Your task to perform on an android device: toggle pop-ups in chrome Image 0: 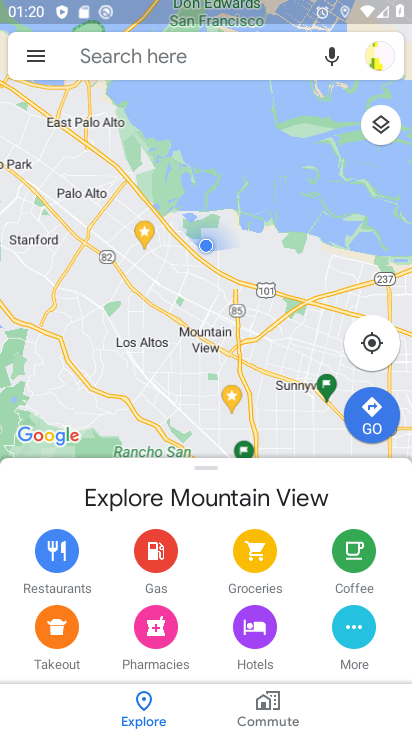
Step 0: press home button
Your task to perform on an android device: toggle pop-ups in chrome Image 1: 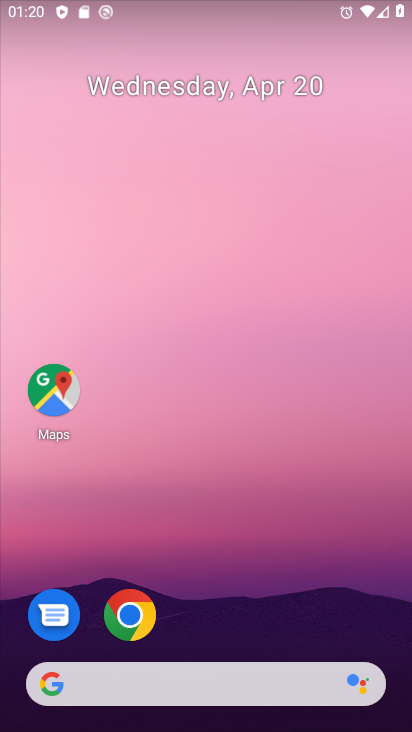
Step 1: click (134, 608)
Your task to perform on an android device: toggle pop-ups in chrome Image 2: 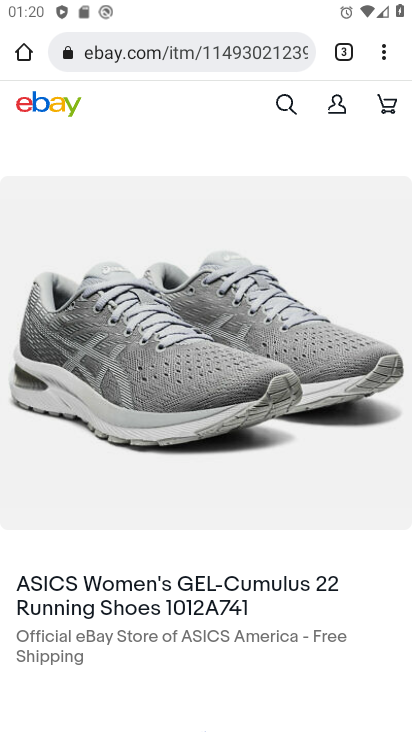
Step 2: click (379, 46)
Your task to perform on an android device: toggle pop-ups in chrome Image 3: 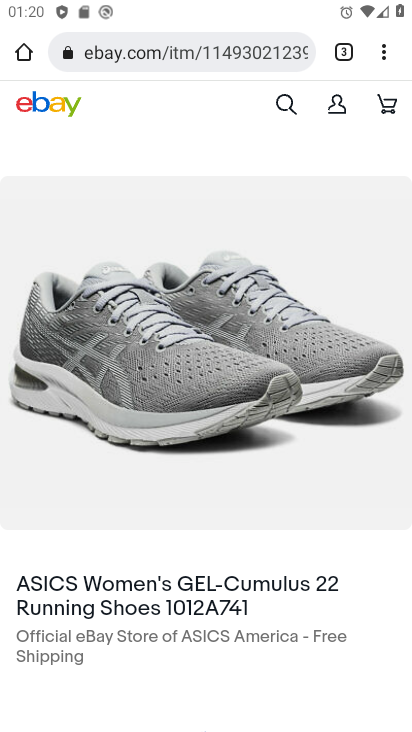
Step 3: click (382, 48)
Your task to perform on an android device: toggle pop-ups in chrome Image 4: 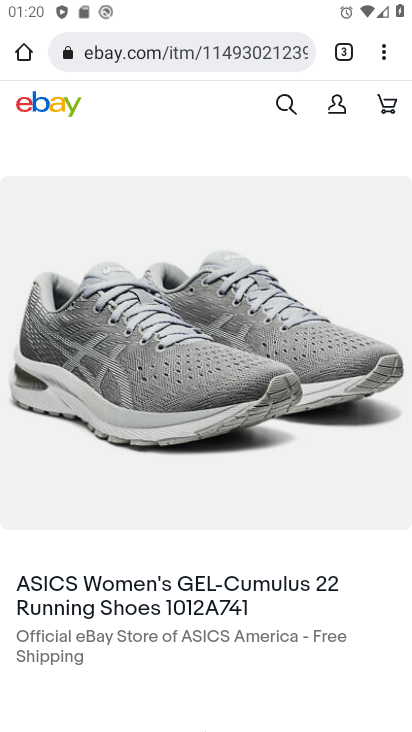
Step 4: drag from (382, 48) to (383, 151)
Your task to perform on an android device: toggle pop-ups in chrome Image 5: 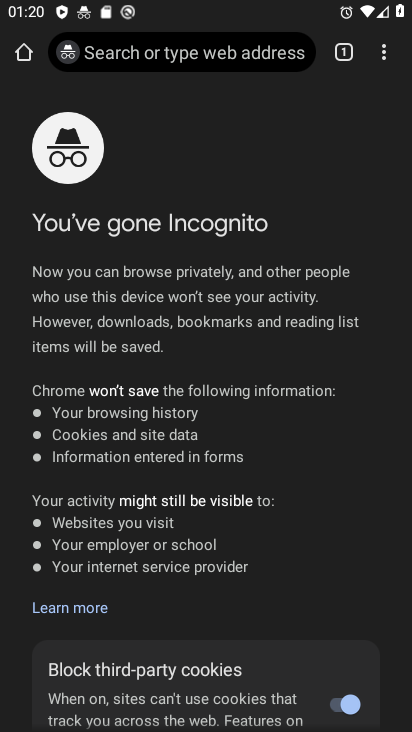
Step 5: drag from (381, 48) to (382, 104)
Your task to perform on an android device: toggle pop-ups in chrome Image 6: 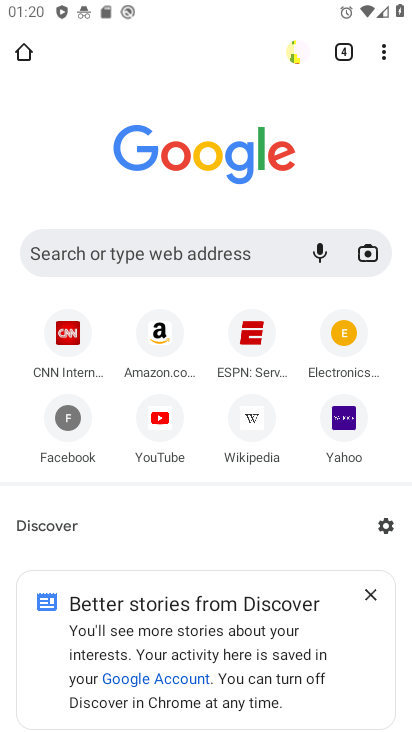
Step 6: drag from (382, 44) to (392, 186)
Your task to perform on an android device: toggle pop-ups in chrome Image 7: 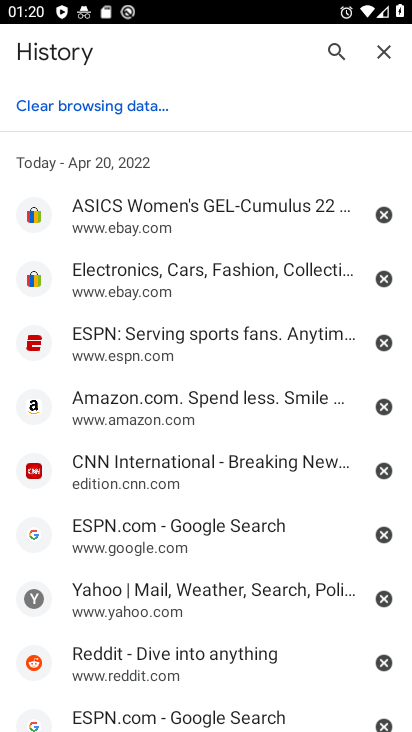
Step 7: click (392, 48)
Your task to perform on an android device: toggle pop-ups in chrome Image 8: 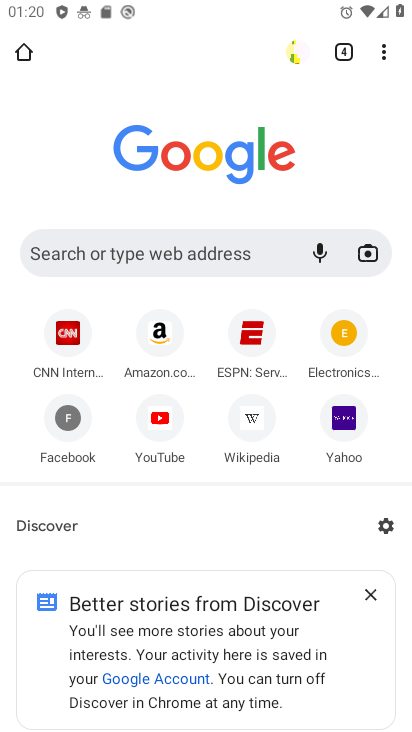
Step 8: click (380, 50)
Your task to perform on an android device: toggle pop-ups in chrome Image 9: 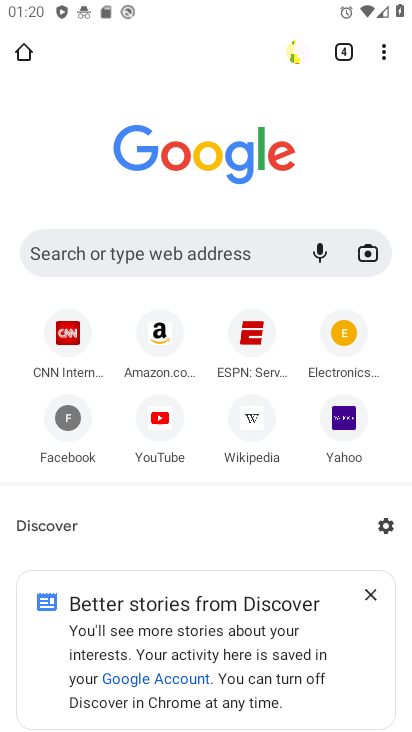
Step 9: click (380, 50)
Your task to perform on an android device: toggle pop-ups in chrome Image 10: 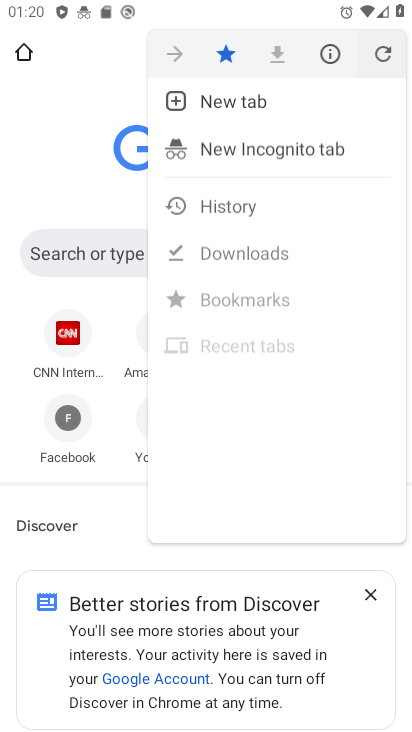
Step 10: click (380, 50)
Your task to perform on an android device: toggle pop-ups in chrome Image 11: 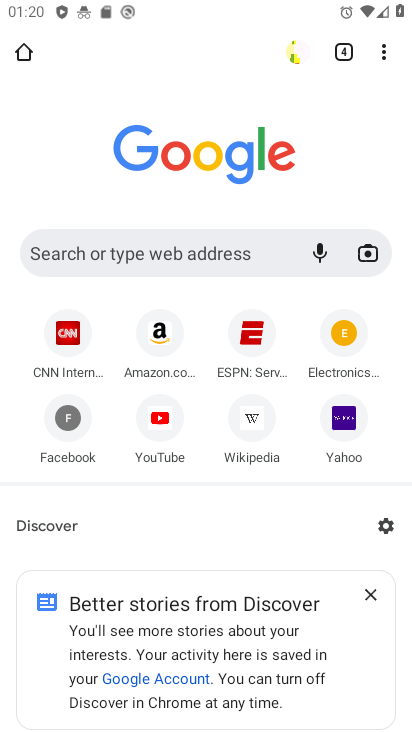
Step 11: click (381, 50)
Your task to perform on an android device: toggle pop-ups in chrome Image 12: 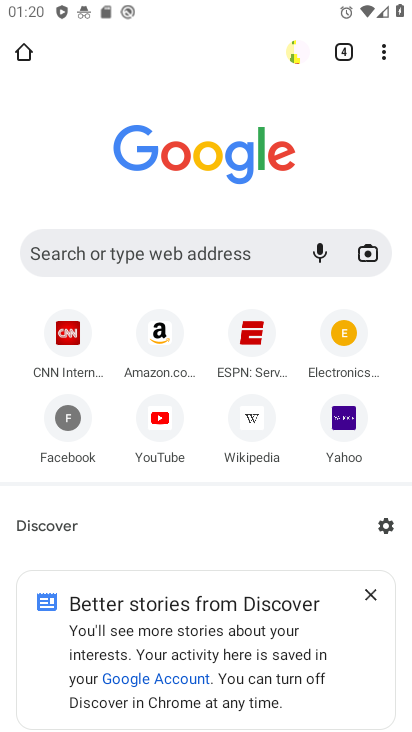
Step 12: click (381, 50)
Your task to perform on an android device: toggle pop-ups in chrome Image 13: 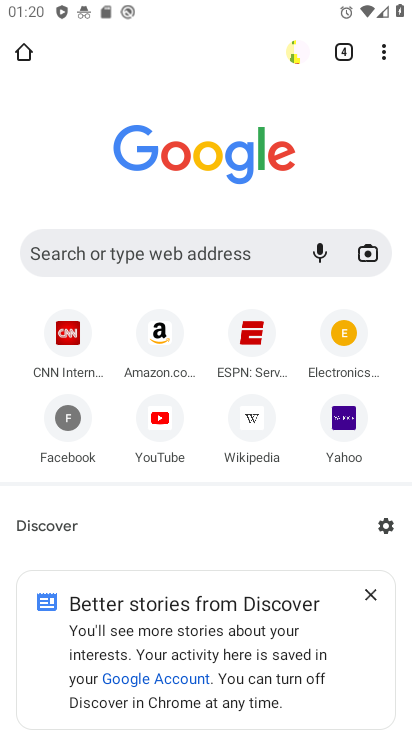
Step 13: click (381, 50)
Your task to perform on an android device: toggle pop-ups in chrome Image 14: 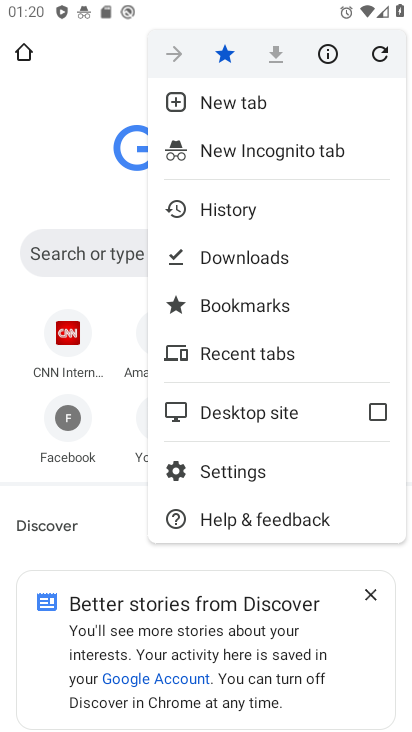
Step 14: click (243, 473)
Your task to perform on an android device: toggle pop-ups in chrome Image 15: 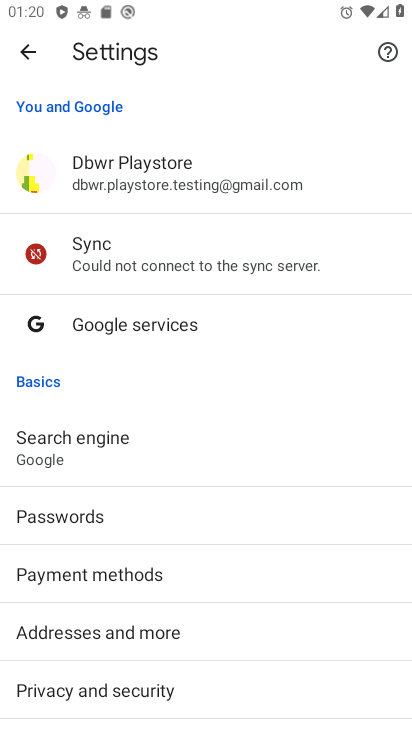
Step 15: drag from (311, 549) to (309, 326)
Your task to perform on an android device: toggle pop-ups in chrome Image 16: 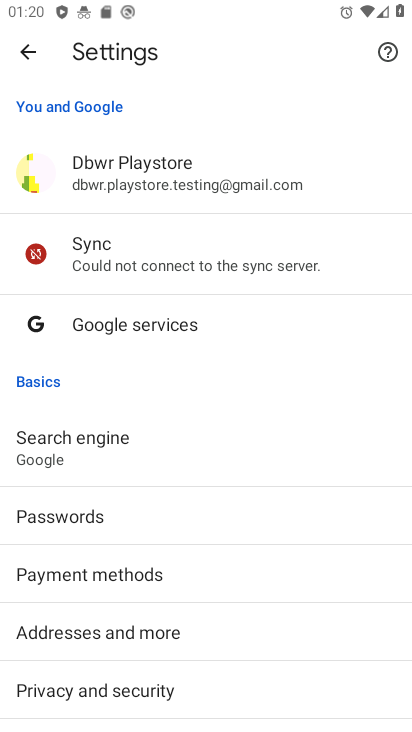
Step 16: drag from (319, 539) to (319, 334)
Your task to perform on an android device: toggle pop-ups in chrome Image 17: 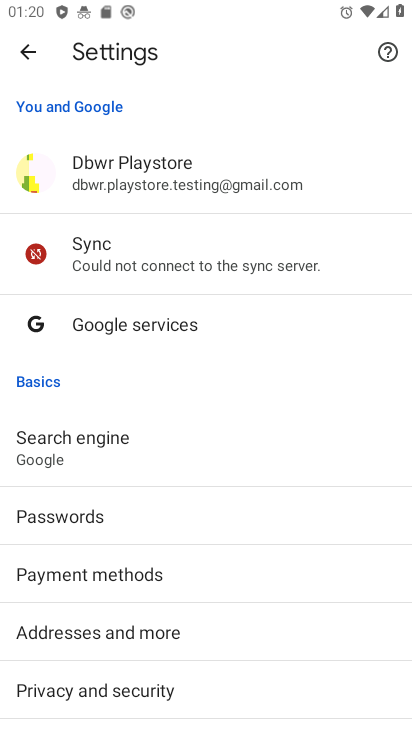
Step 17: drag from (374, 648) to (355, 294)
Your task to perform on an android device: toggle pop-ups in chrome Image 18: 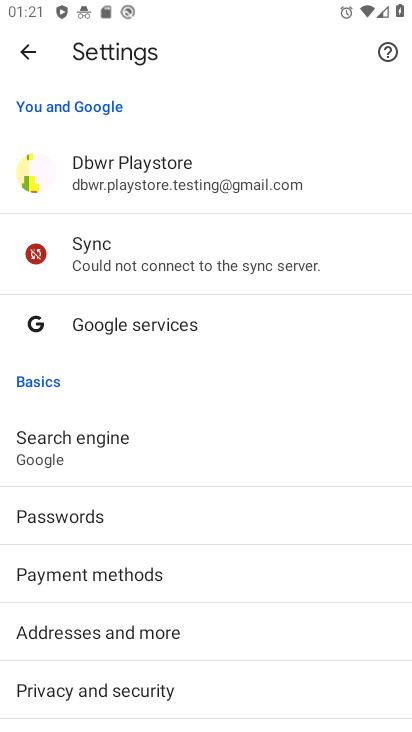
Step 18: drag from (323, 493) to (329, 291)
Your task to perform on an android device: toggle pop-ups in chrome Image 19: 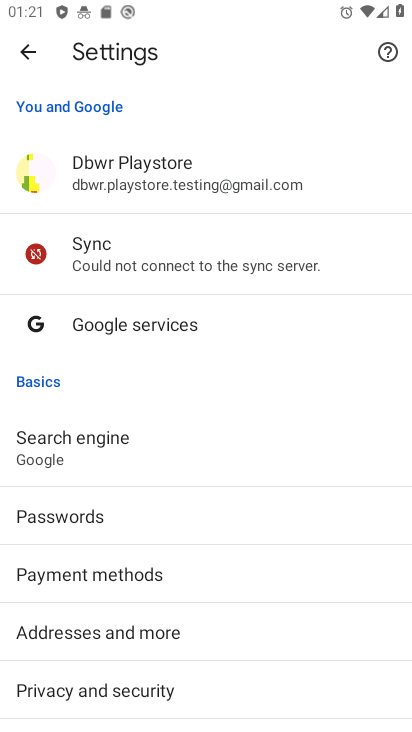
Step 19: drag from (357, 687) to (374, 332)
Your task to perform on an android device: toggle pop-ups in chrome Image 20: 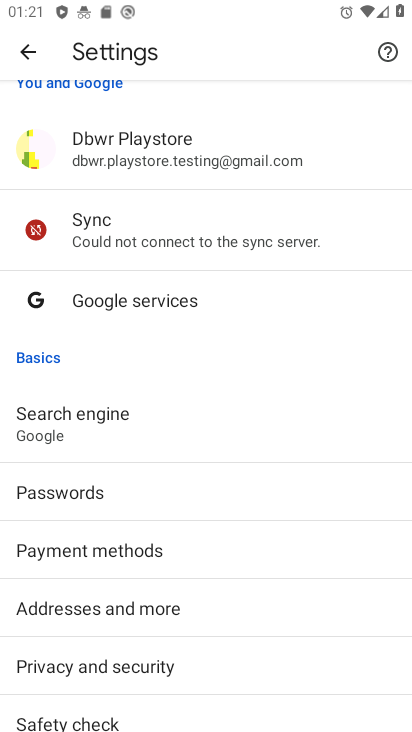
Step 20: drag from (269, 623) to (265, 189)
Your task to perform on an android device: toggle pop-ups in chrome Image 21: 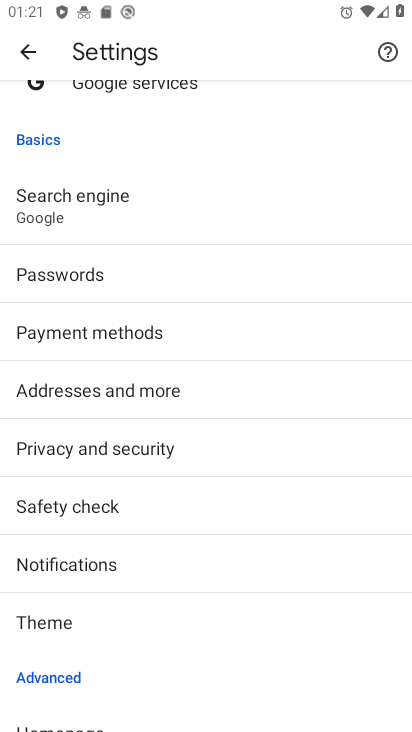
Step 21: drag from (296, 323) to (294, 221)
Your task to perform on an android device: toggle pop-ups in chrome Image 22: 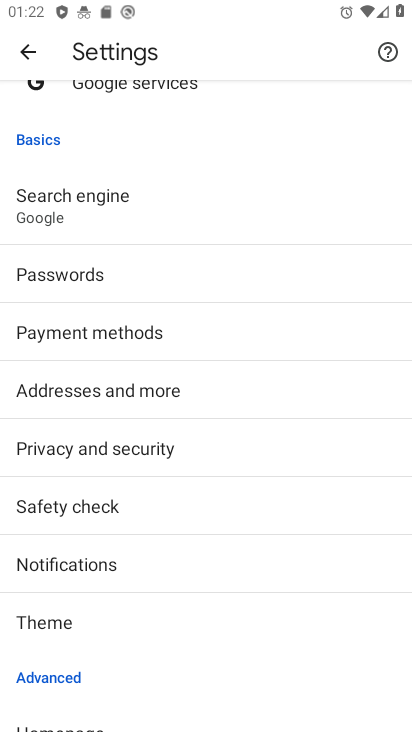
Step 22: drag from (201, 660) to (210, 208)
Your task to perform on an android device: toggle pop-ups in chrome Image 23: 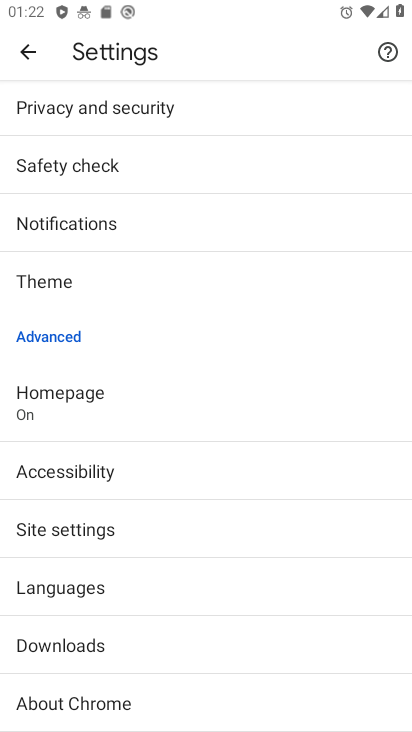
Step 23: drag from (296, 352) to (271, 139)
Your task to perform on an android device: toggle pop-ups in chrome Image 24: 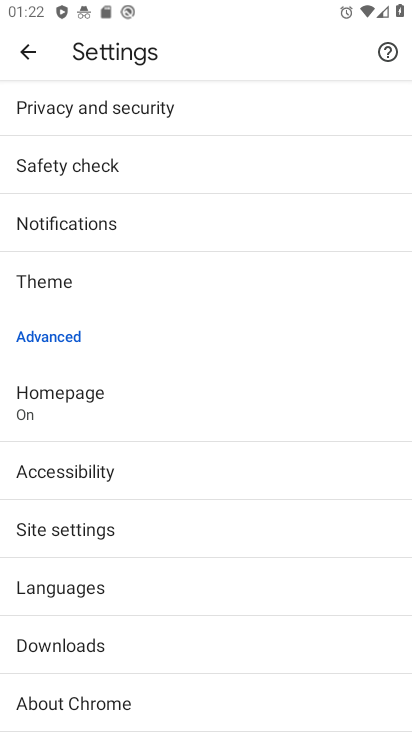
Step 24: click (50, 540)
Your task to perform on an android device: toggle pop-ups in chrome Image 25: 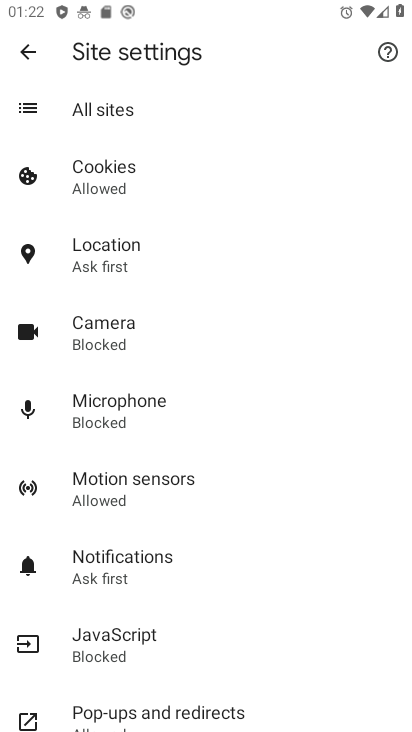
Step 25: click (119, 711)
Your task to perform on an android device: toggle pop-ups in chrome Image 26: 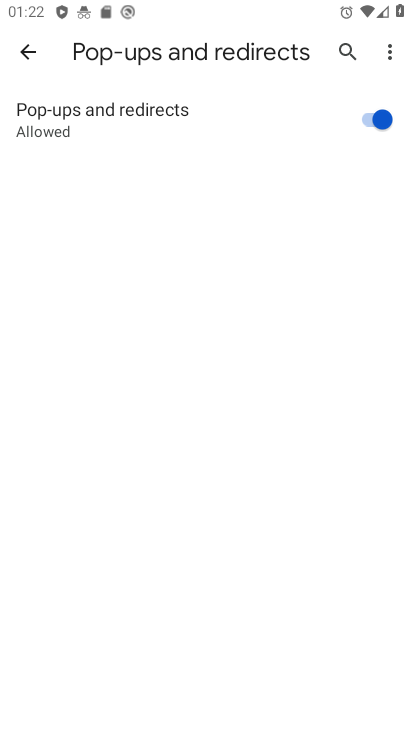
Step 26: click (367, 111)
Your task to perform on an android device: toggle pop-ups in chrome Image 27: 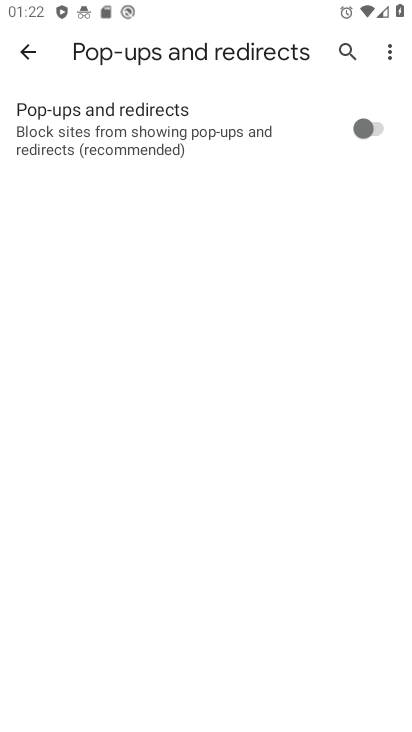
Step 27: task complete